Your task to perform on an android device: turn off airplane mode Image 0: 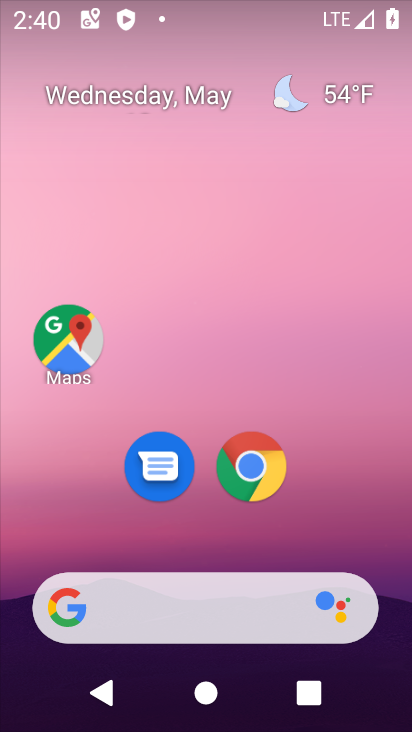
Step 0: drag from (382, 546) to (288, 226)
Your task to perform on an android device: turn off airplane mode Image 1: 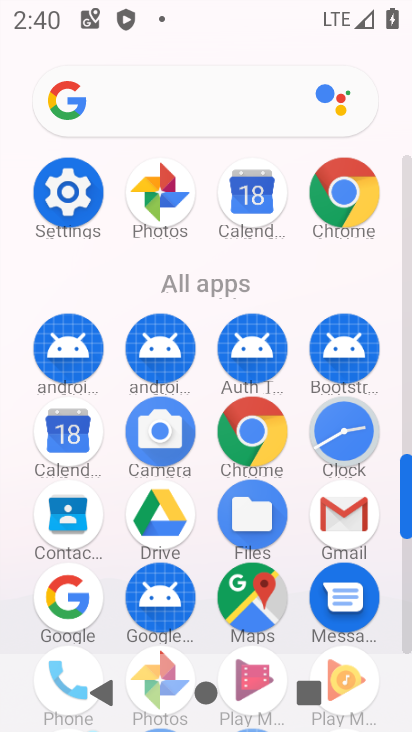
Step 1: click (62, 201)
Your task to perform on an android device: turn off airplane mode Image 2: 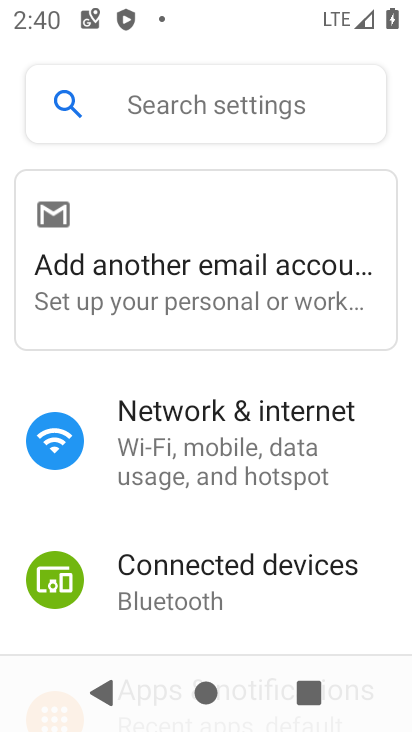
Step 2: click (160, 446)
Your task to perform on an android device: turn off airplane mode Image 3: 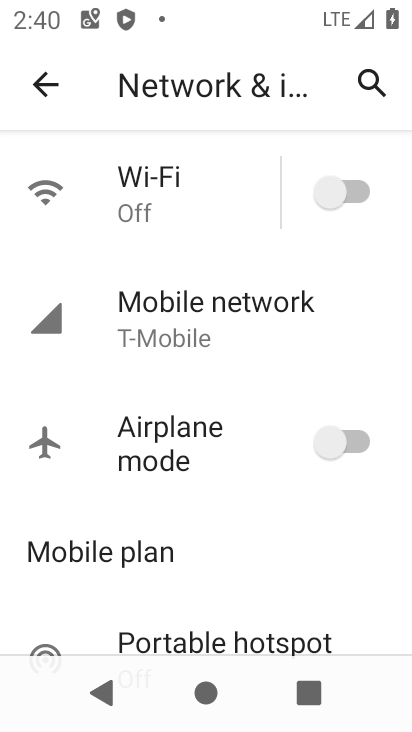
Step 3: task complete